Your task to perform on an android device: check data usage Image 0: 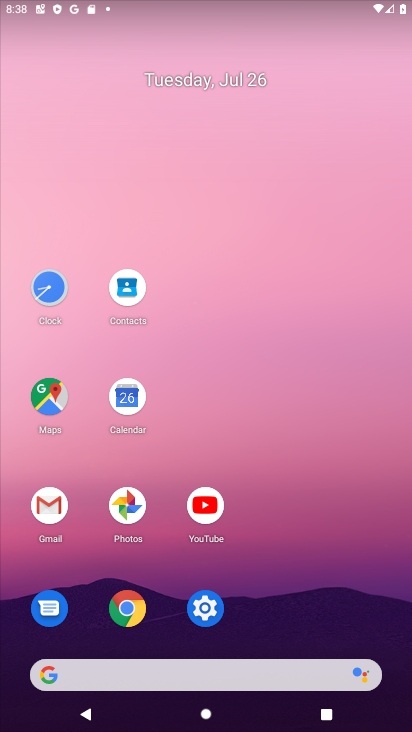
Step 0: click (214, 609)
Your task to perform on an android device: check data usage Image 1: 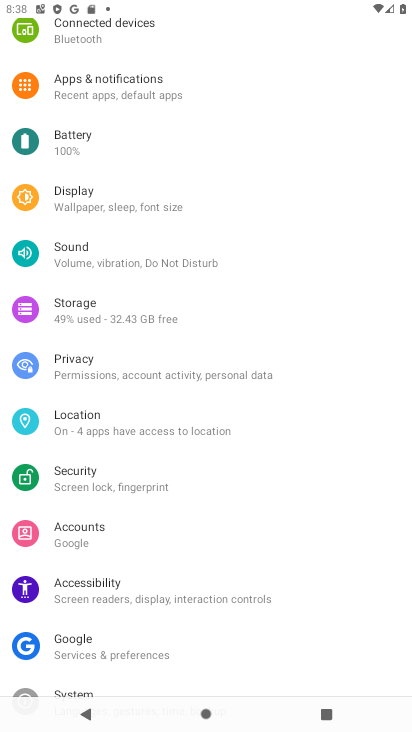
Step 1: drag from (169, 131) to (163, 586)
Your task to perform on an android device: check data usage Image 2: 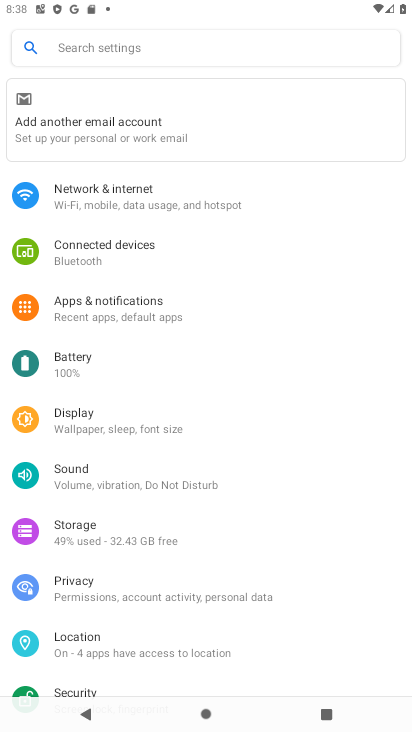
Step 2: click (100, 187)
Your task to perform on an android device: check data usage Image 3: 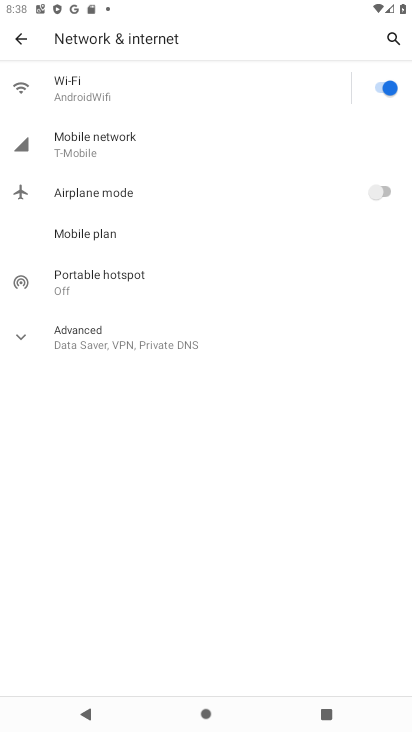
Step 3: click (81, 131)
Your task to perform on an android device: check data usage Image 4: 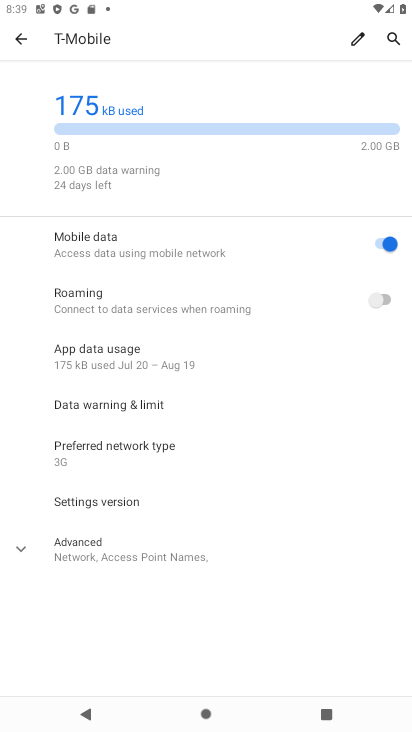
Step 4: task complete